Your task to perform on an android device: choose inbox layout in the gmail app Image 0: 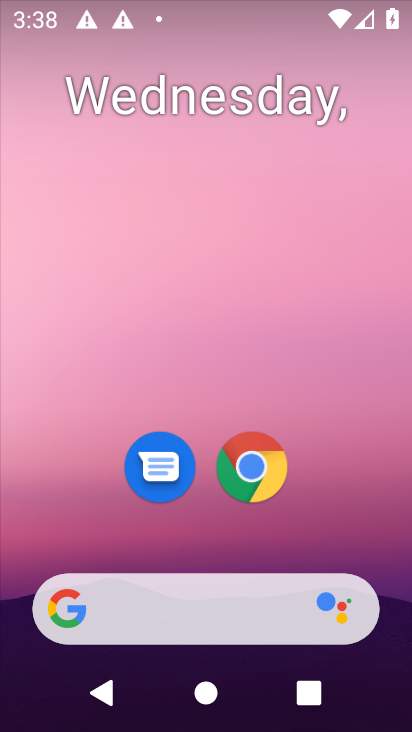
Step 0: drag from (22, 645) to (49, 257)
Your task to perform on an android device: choose inbox layout in the gmail app Image 1: 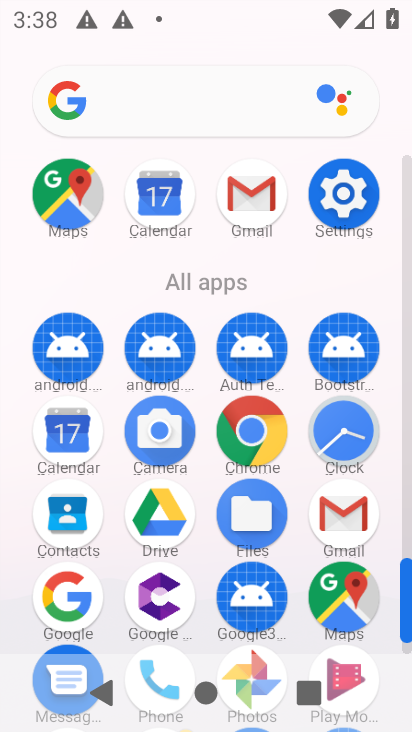
Step 1: click (250, 195)
Your task to perform on an android device: choose inbox layout in the gmail app Image 2: 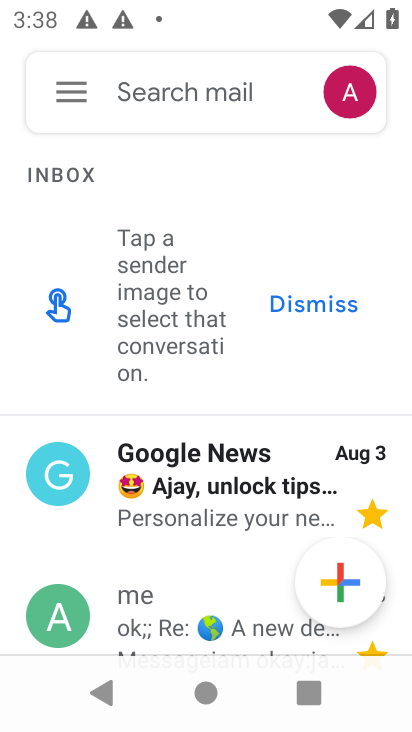
Step 2: click (70, 96)
Your task to perform on an android device: choose inbox layout in the gmail app Image 3: 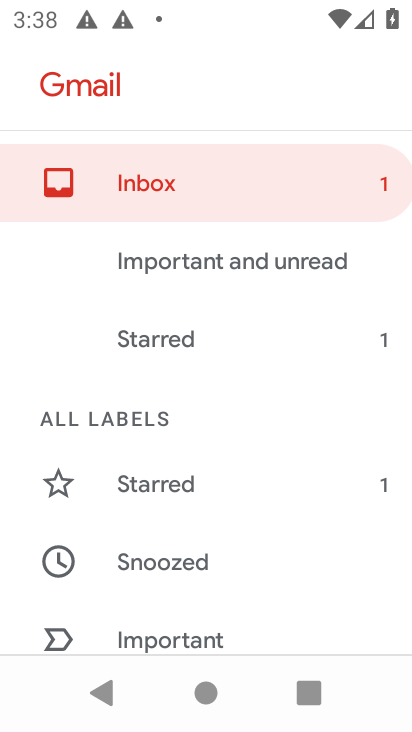
Step 3: drag from (255, 593) to (188, 270)
Your task to perform on an android device: choose inbox layout in the gmail app Image 4: 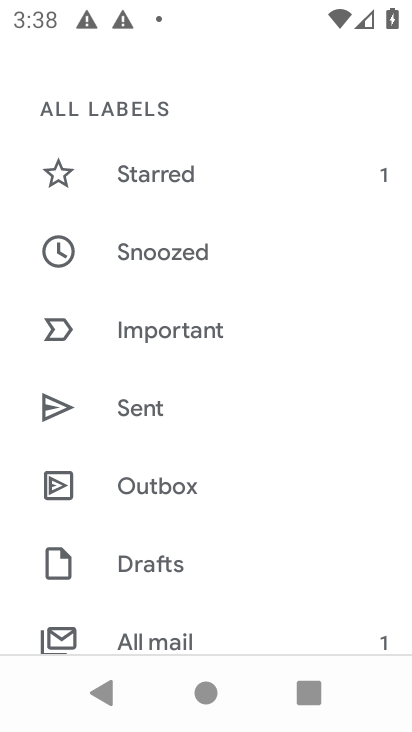
Step 4: click (298, 647)
Your task to perform on an android device: choose inbox layout in the gmail app Image 5: 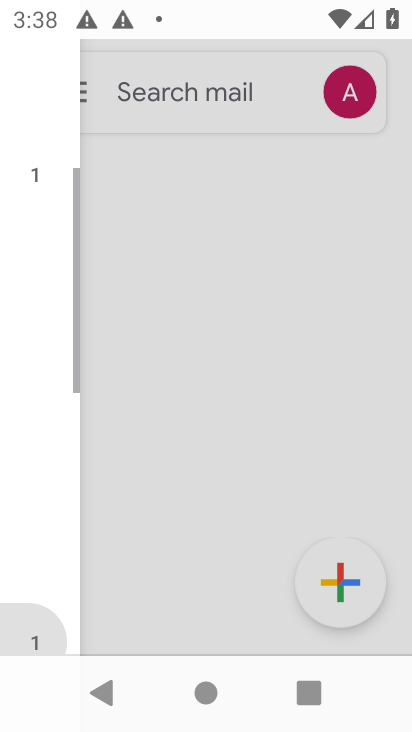
Step 5: drag from (298, 647) to (199, 157)
Your task to perform on an android device: choose inbox layout in the gmail app Image 6: 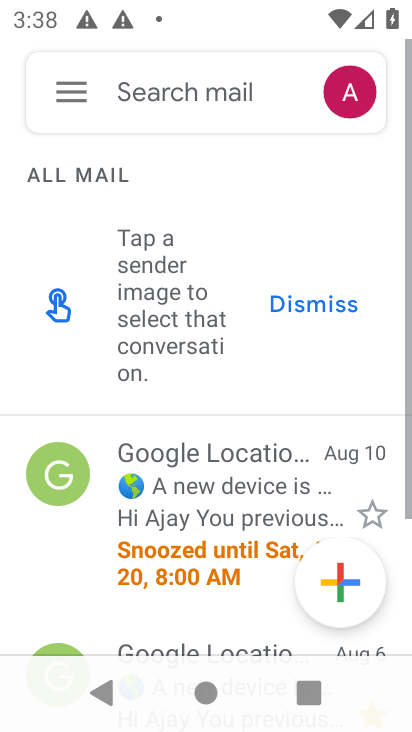
Step 6: click (78, 93)
Your task to perform on an android device: choose inbox layout in the gmail app Image 7: 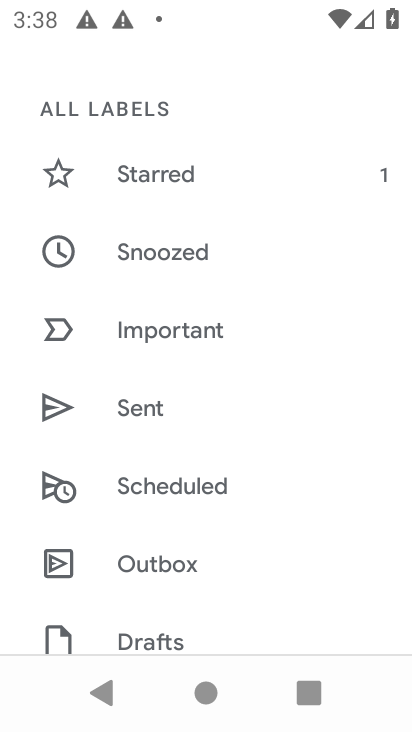
Step 7: drag from (296, 579) to (223, 120)
Your task to perform on an android device: choose inbox layout in the gmail app Image 8: 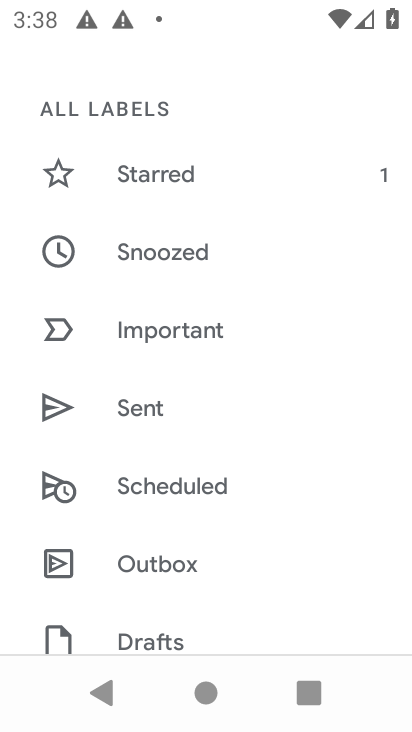
Step 8: drag from (282, 591) to (256, 282)
Your task to perform on an android device: choose inbox layout in the gmail app Image 9: 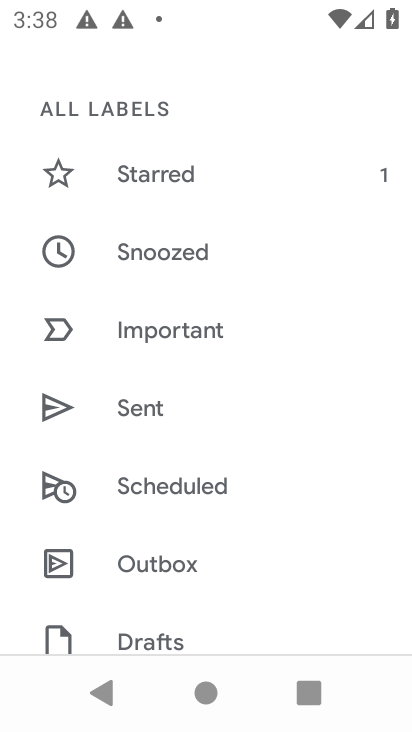
Step 9: drag from (250, 586) to (220, 405)
Your task to perform on an android device: choose inbox layout in the gmail app Image 10: 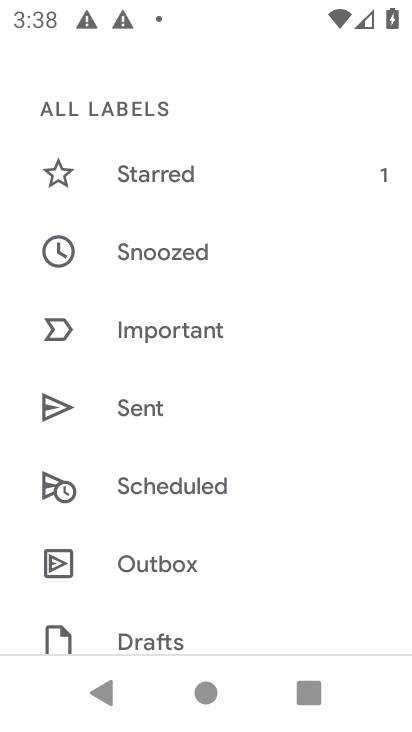
Step 10: click (353, 611)
Your task to perform on an android device: choose inbox layout in the gmail app Image 11: 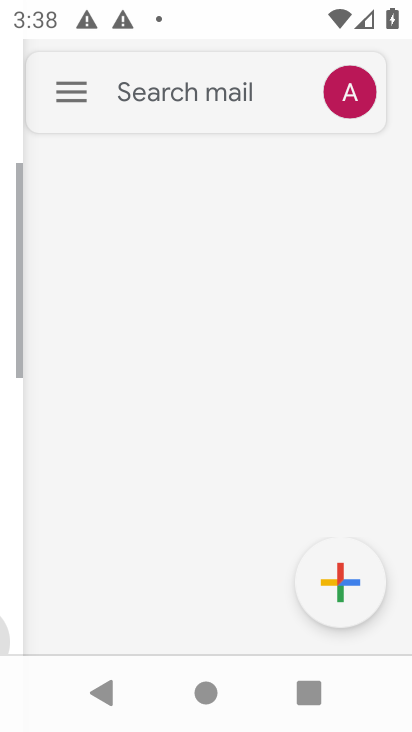
Step 11: task complete